Your task to perform on an android device: Open calendar and show me the first week of next month Image 0: 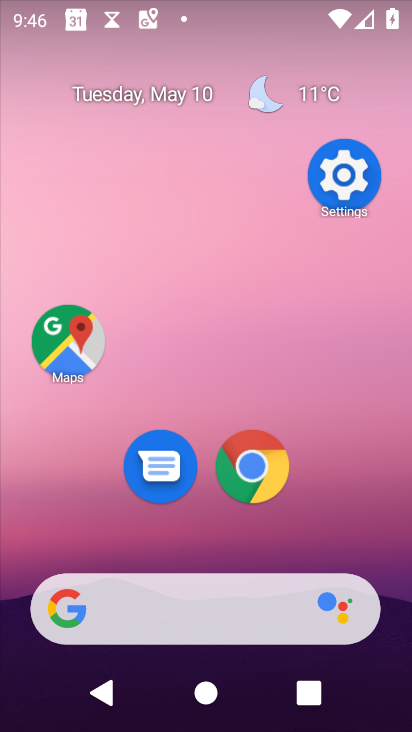
Step 0: drag from (311, 544) to (232, 103)
Your task to perform on an android device: Open calendar and show me the first week of next month Image 1: 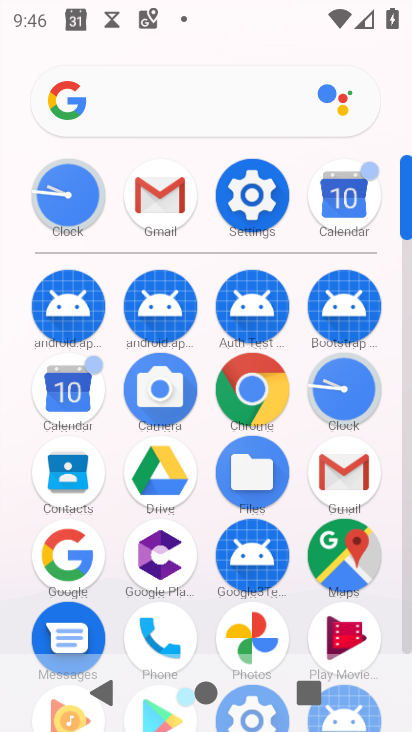
Step 1: click (61, 398)
Your task to perform on an android device: Open calendar and show me the first week of next month Image 2: 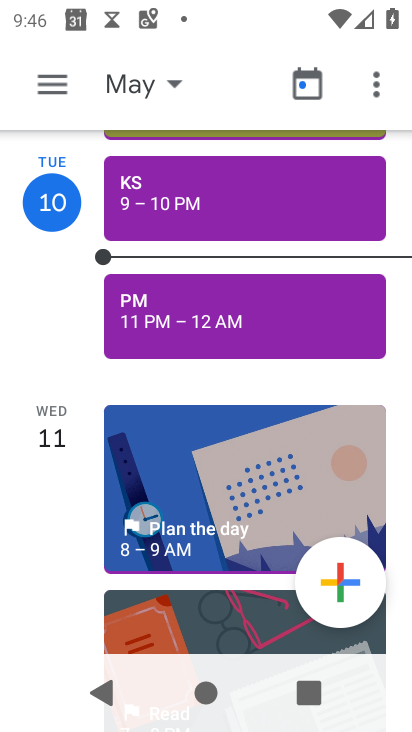
Step 2: click (150, 90)
Your task to perform on an android device: Open calendar and show me the first week of next month Image 3: 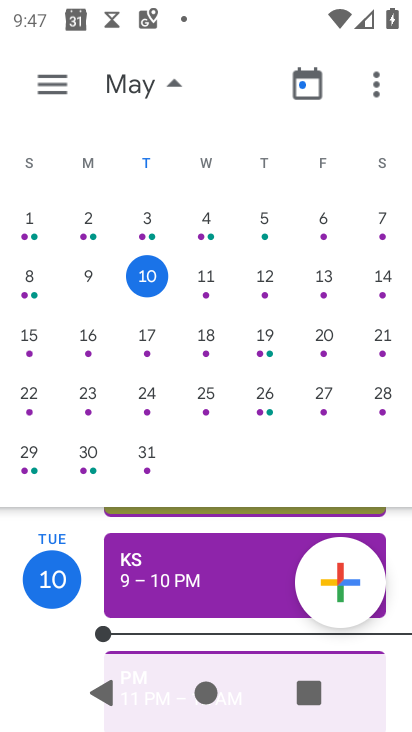
Step 3: task complete